Your task to perform on an android device: change notification settings in the gmail app Image 0: 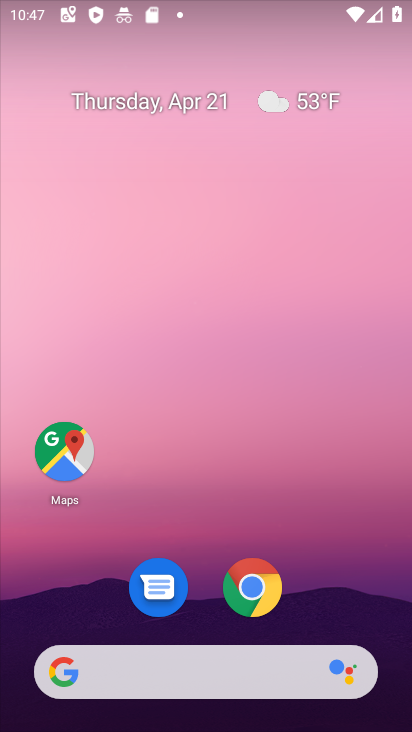
Step 0: drag from (182, 601) to (193, 43)
Your task to perform on an android device: change notification settings in the gmail app Image 1: 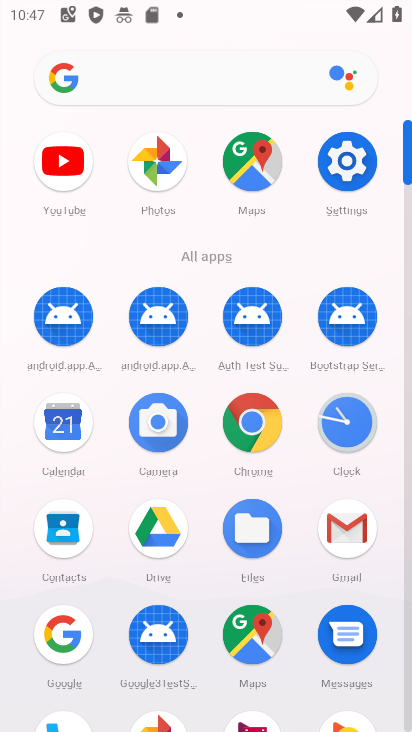
Step 1: click (338, 531)
Your task to perform on an android device: change notification settings in the gmail app Image 2: 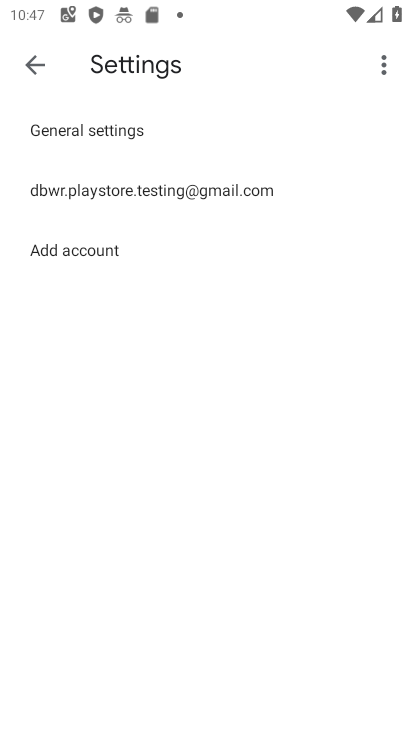
Step 2: click (186, 190)
Your task to perform on an android device: change notification settings in the gmail app Image 3: 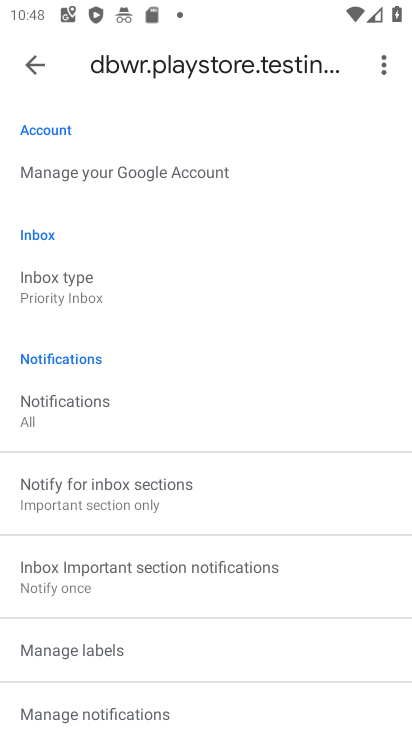
Step 3: drag from (104, 590) to (76, 1)
Your task to perform on an android device: change notification settings in the gmail app Image 4: 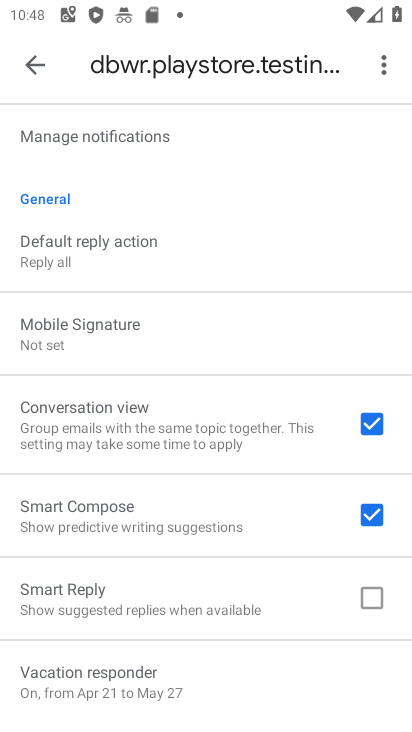
Step 4: click (68, 134)
Your task to perform on an android device: change notification settings in the gmail app Image 5: 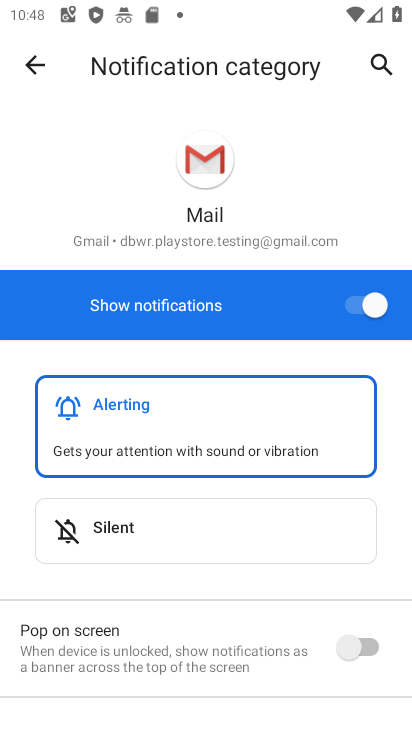
Step 5: click (364, 307)
Your task to perform on an android device: change notification settings in the gmail app Image 6: 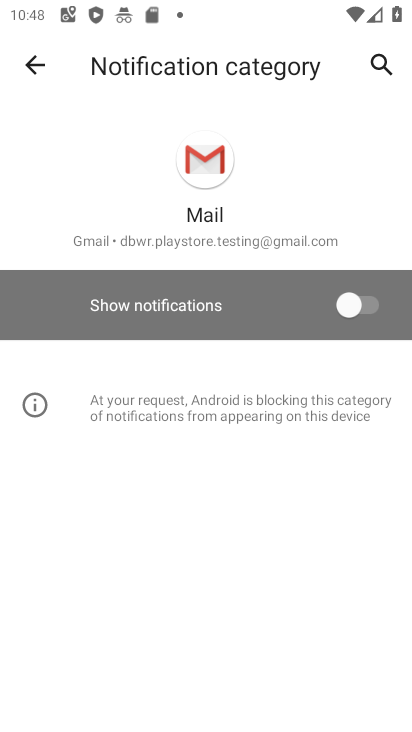
Step 6: task complete